Your task to perform on an android device: turn on priority inbox in the gmail app Image 0: 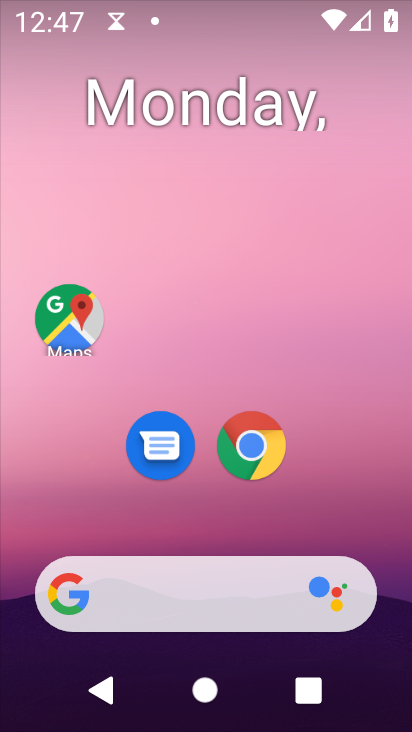
Step 0: drag from (256, 662) to (157, 95)
Your task to perform on an android device: turn on priority inbox in the gmail app Image 1: 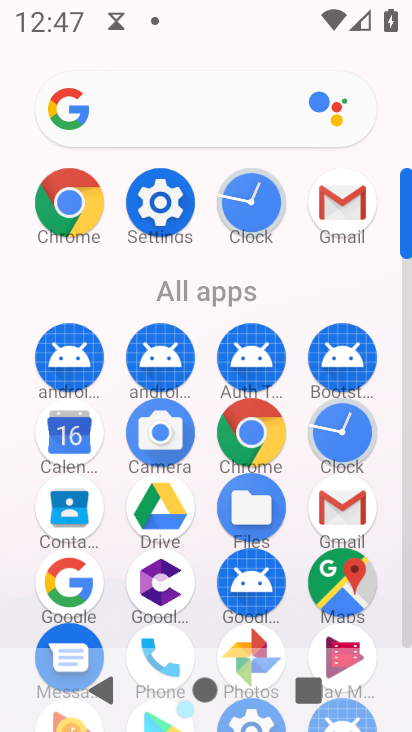
Step 1: click (329, 507)
Your task to perform on an android device: turn on priority inbox in the gmail app Image 2: 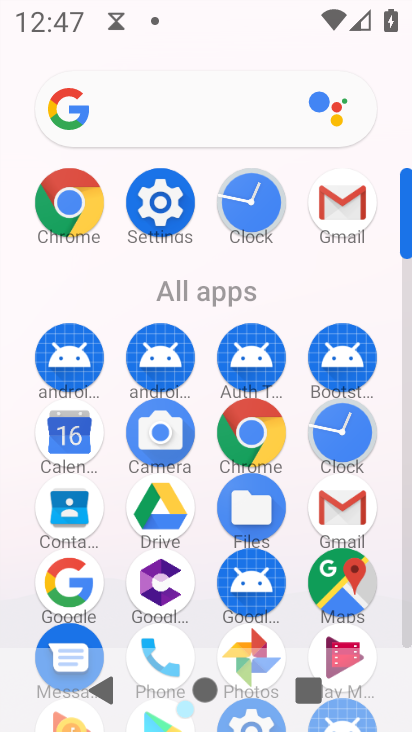
Step 2: click (329, 507)
Your task to perform on an android device: turn on priority inbox in the gmail app Image 3: 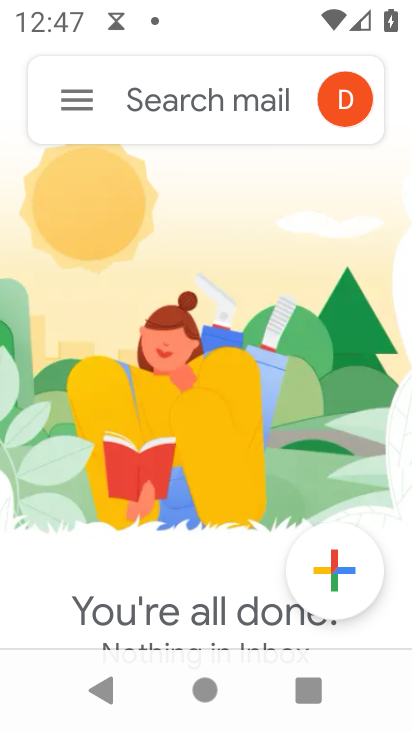
Step 3: drag from (158, 451) to (162, 212)
Your task to perform on an android device: turn on priority inbox in the gmail app Image 4: 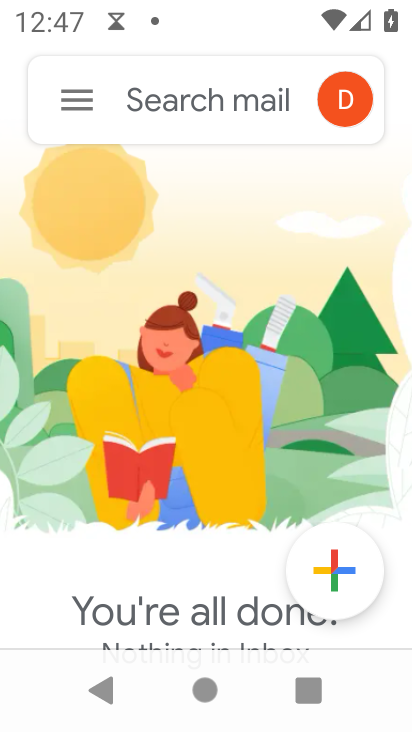
Step 4: drag from (193, 404) to (227, 134)
Your task to perform on an android device: turn on priority inbox in the gmail app Image 5: 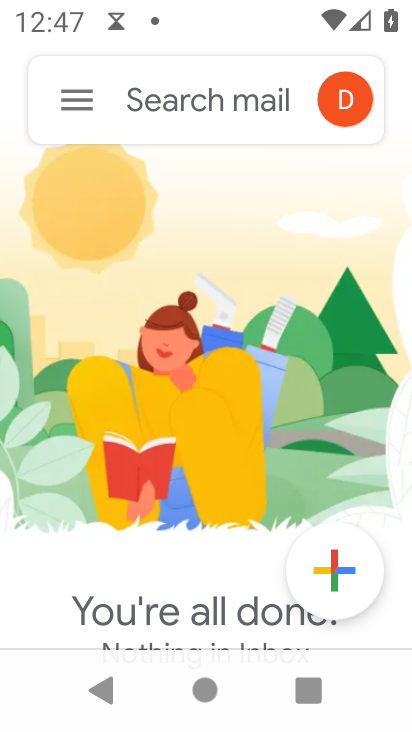
Step 5: drag from (279, 369) to (333, 55)
Your task to perform on an android device: turn on priority inbox in the gmail app Image 6: 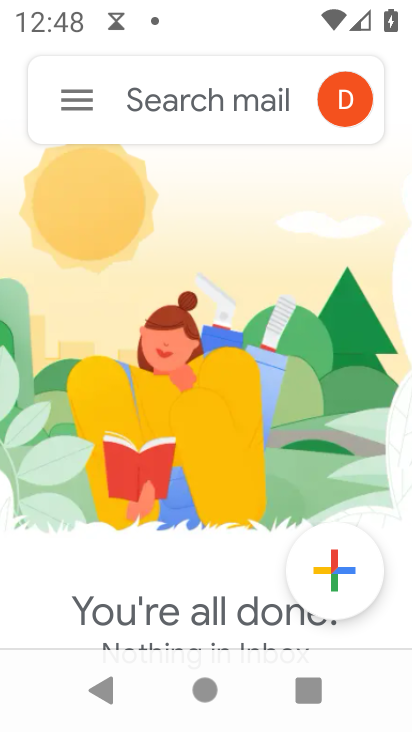
Step 6: click (69, 112)
Your task to perform on an android device: turn on priority inbox in the gmail app Image 7: 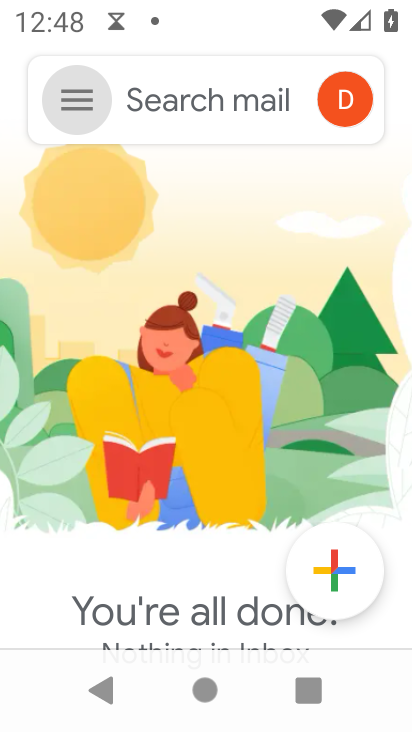
Step 7: click (81, 92)
Your task to perform on an android device: turn on priority inbox in the gmail app Image 8: 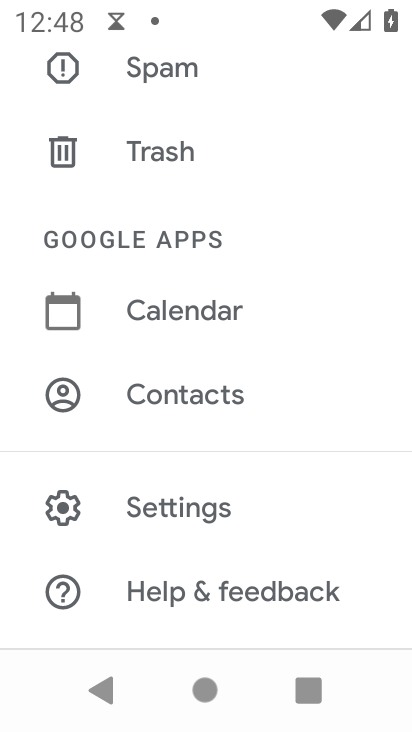
Step 8: drag from (236, 526) to (192, 159)
Your task to perform on an android device: turn on priority inbox in the gmail app Image 9: 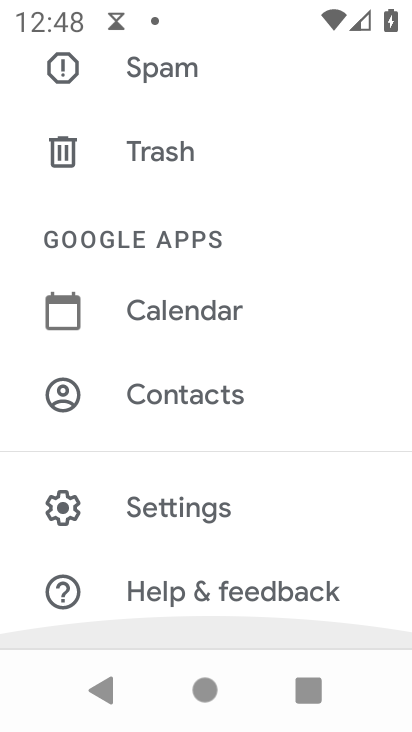
Step 9: drag from (226, 363) to (238, 47)
Your task to perform on an android device: turn on priority inbox in the gmail app Image 10: 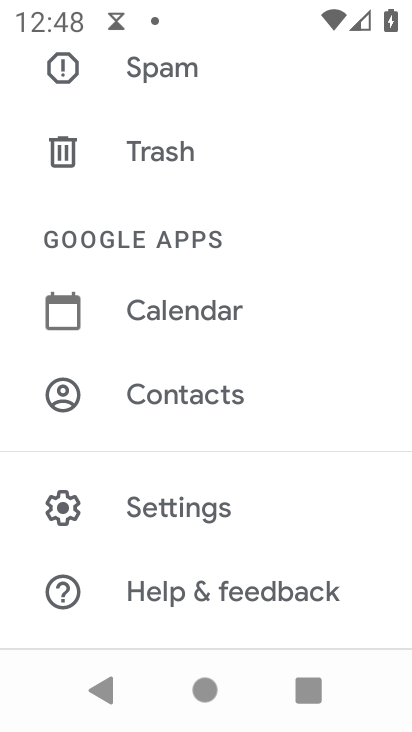
Step 10: click (168, 497)
Your task to perform on an android device: turn on priority inbox in the gmail app Image 11: 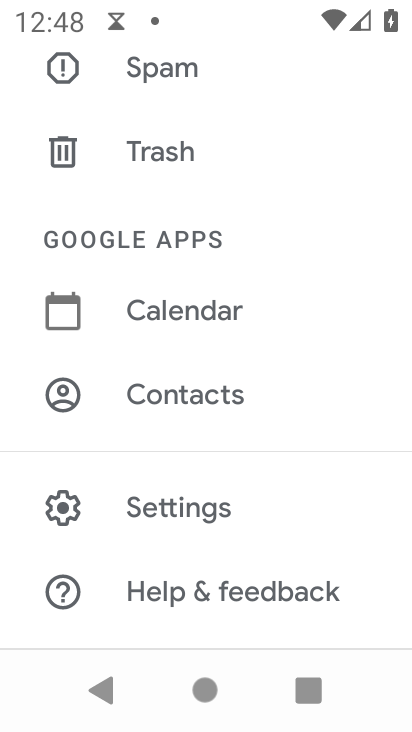
Step 11: click (168, 497)
Your task to perform on an android device: turn on priority inbox in the gmail app Image 12: 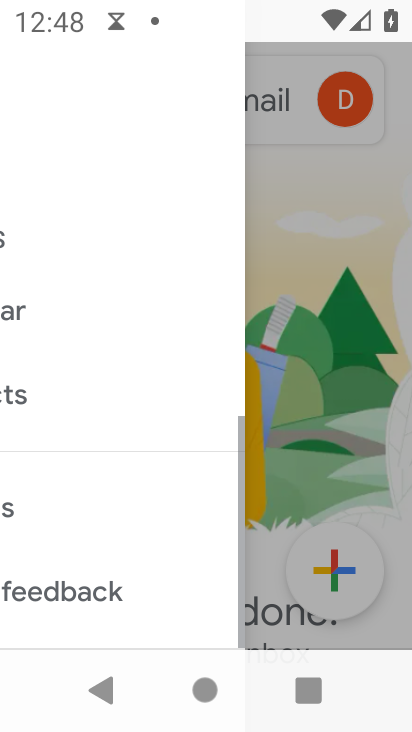
Step 12: click (168, 497)
Your task to perform on an android device: turn on priority inbox in the gmail app Image 13: 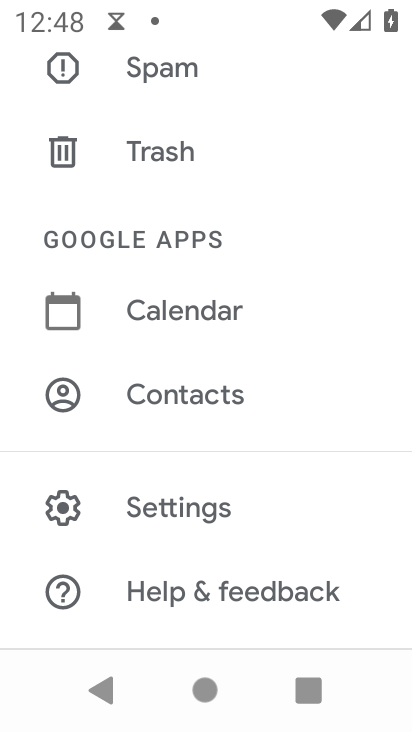
Step 13: click (188, 505)
Your task to perform on an android device: turn on priority inbox in the gmail app Image 14: 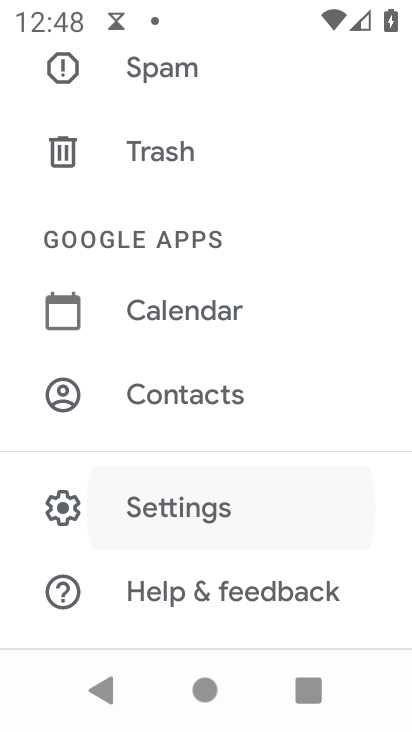
Step 14: click (188, 505)
Your task to perform on an android device: turn on priority inbox in the gmail app Image 15: 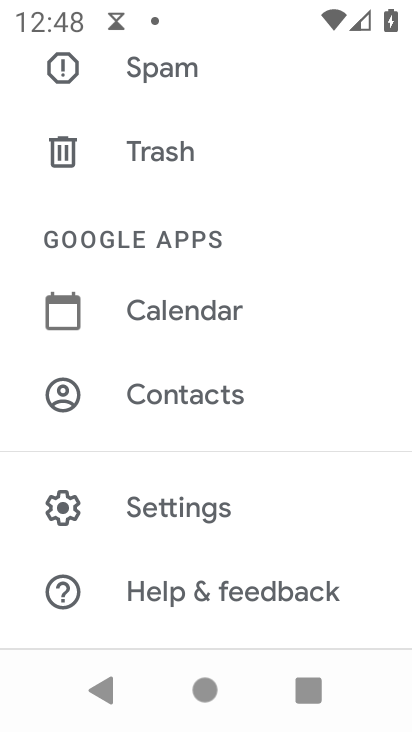
Step 15: click (188, 505)
Your task to perform on an android device: turn on priority inbox in the gmail app Image 16: 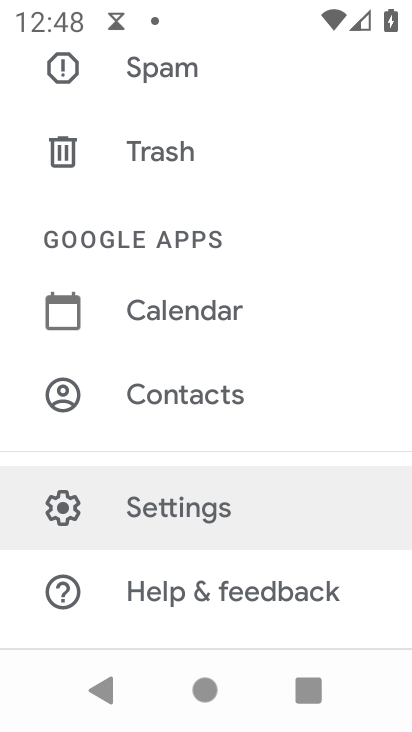
Step 16: click (188, 505)
Your task to perform on an android device: turn on priority inbox in the gmail app Image 17: 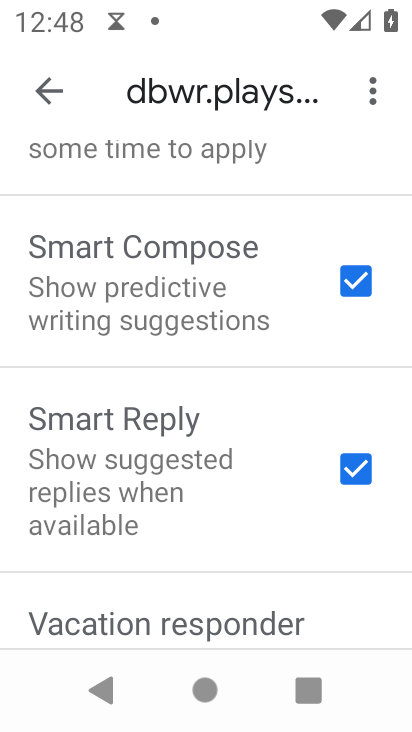
Step 17: drag from (212, 433) to (252, 172)
Your task to perform on an android device: turn on priority inbox in the gmail app Image 18: 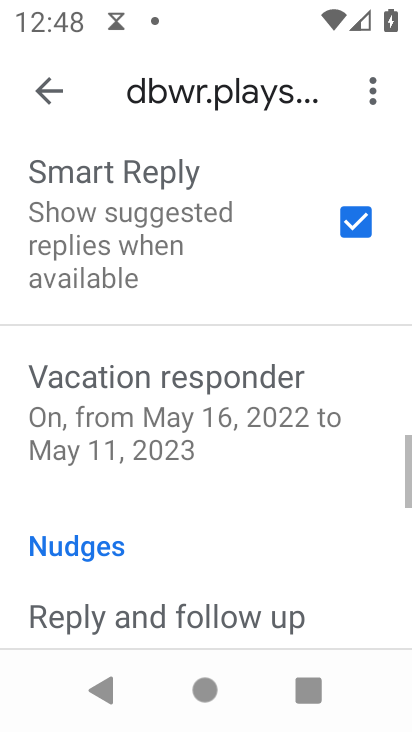
Step 18: drag from (263, 400) to (276, 149)
Your task to perform on an android device: turn on priority inbox in the gmail app Image 19: 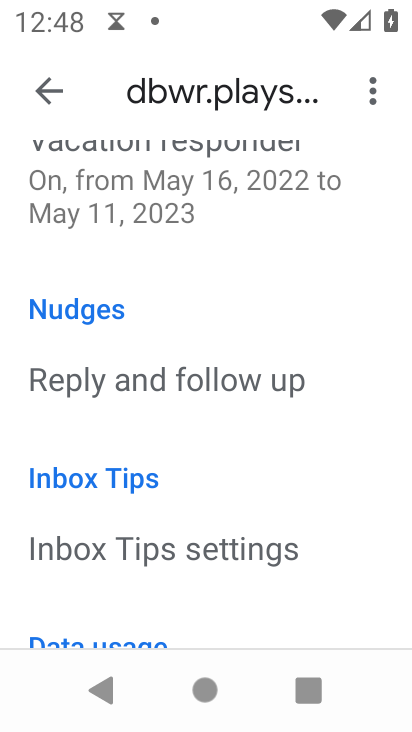
Step 19: drag from (139, 236) to (177, 602)
Your task to perform on an android device: turn on priority inbox in the gmail app Image 20: 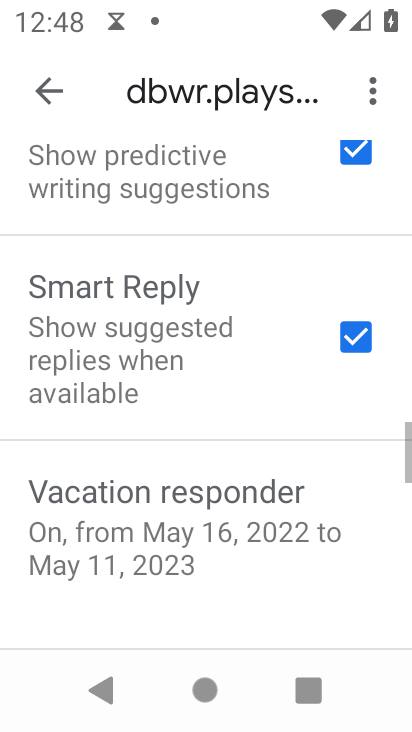
Step 20: drag from (100, 244) to (125, 552)
Your task to perform on an android device: turn on priority inbox in the gmail app Image 21: 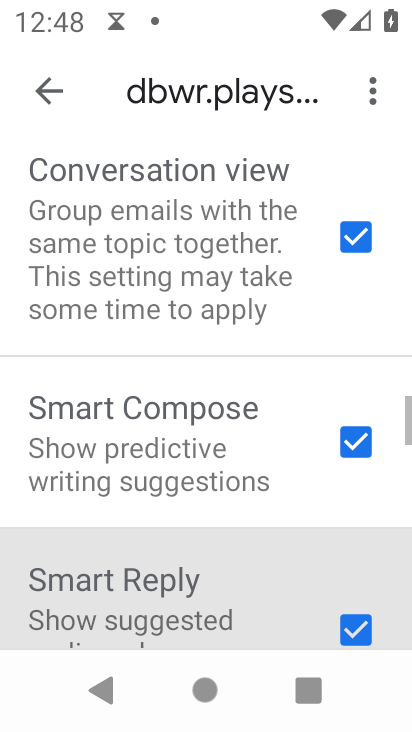
Step 21: drag from (170, 282) to (223, 563)
Your task to perform on an android device: turn on priority inbox in the gmail app Image 22: 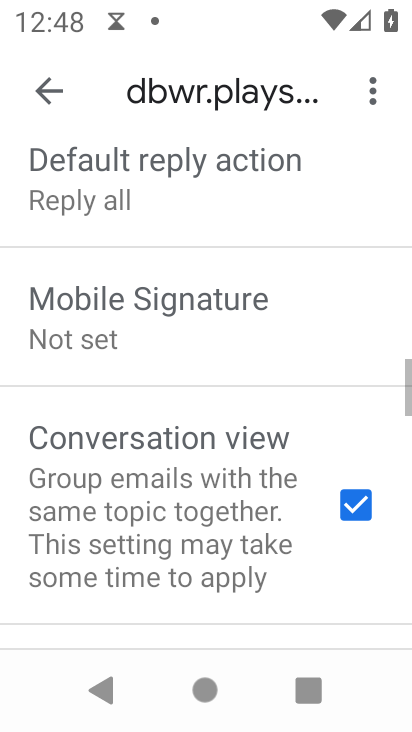
Step 22: drag from (154, 252) to (207, 609)
Your task to perform on an android device: turn on priority inbox in the gmail app Image 23: 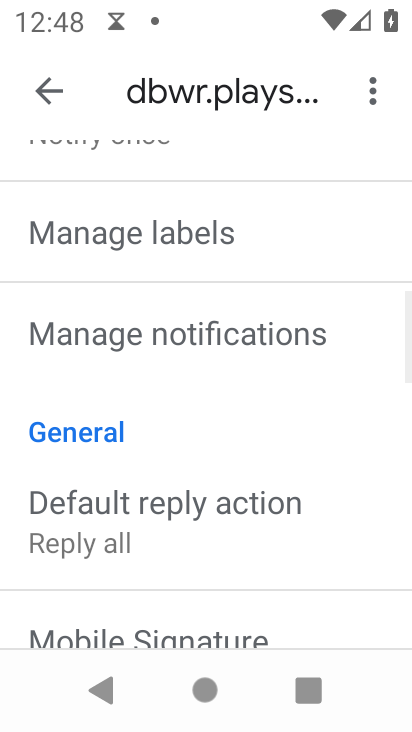
Step 23: drag from (204, 263) to (229, 684)
Your task to perform on an android device: turn on priority inbox in the gmail app Image 24: 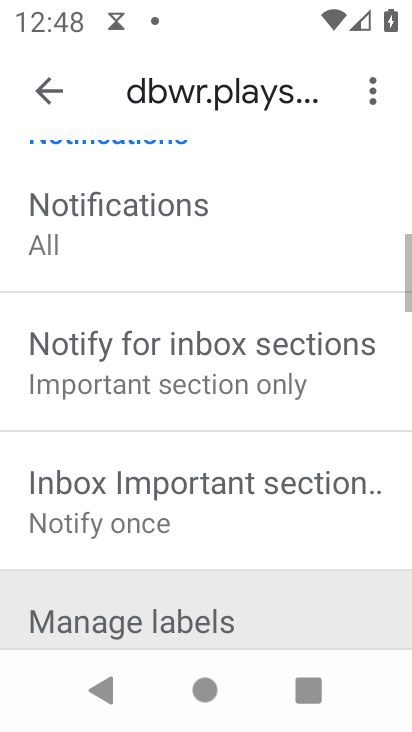
Step 24: drag from (121, 213) to (134, 587)
Your task to perform on an android device: turn on priority inbox in the gmail app Image 25: 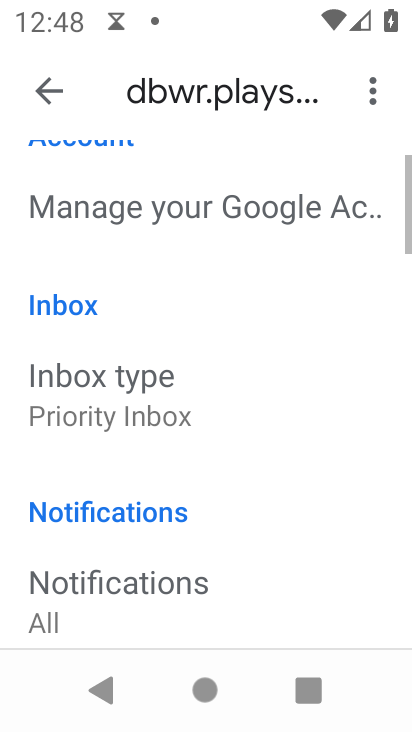
Step 25: drag from (118, 324) to (171, 665)
Your task to perform on an android device: turn on priority inbox in the gmail app Image 26: 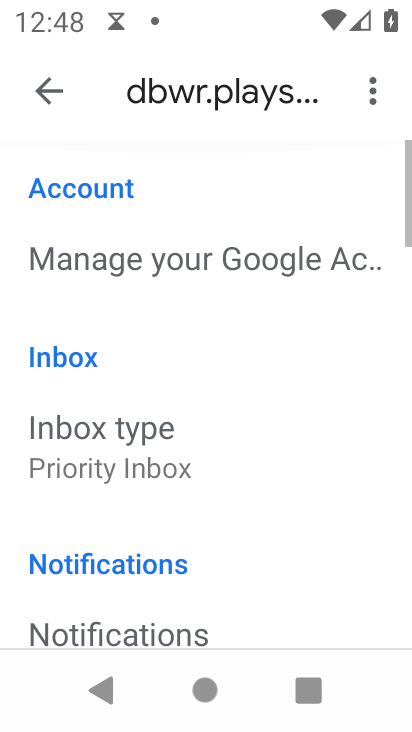
Step 26: drag from (145, 248) to (234, 724)
Your task to perform on an android device: turn on priority inbox in the gmail app Image 27: 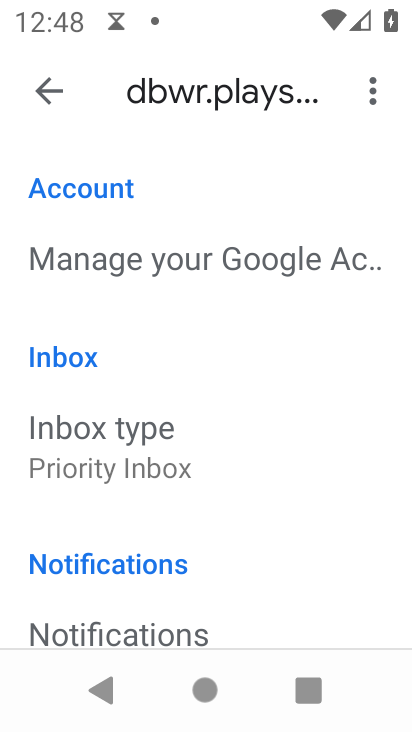
Step 27: click (109, 444)
Your task to perform on an android device: turn on priority inbox in the gmail app Image 28: 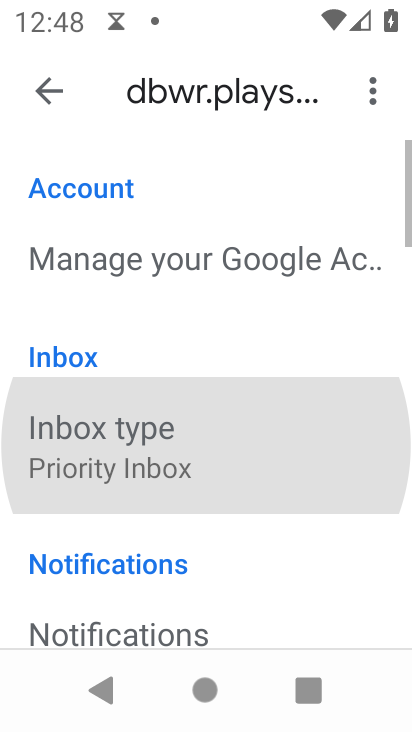
Step 28: click (109, 444)
Your task to perform on an android device: turn on priority inbox in the gmail app Image 29: 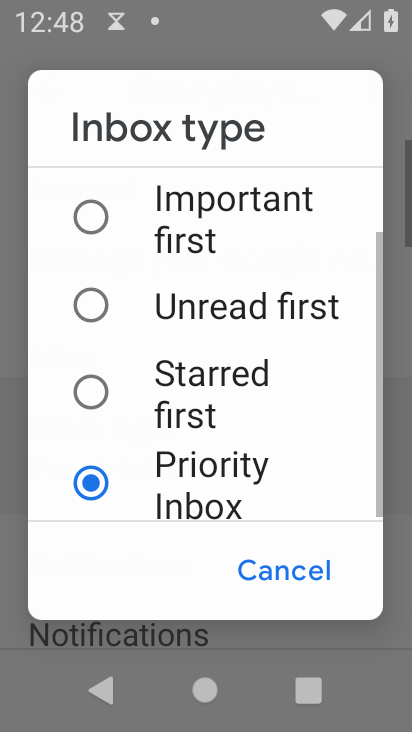
Step 29: click (109, 444)
Your task to perform on an android device: turn on priority inbox in the gmail app Image 30: 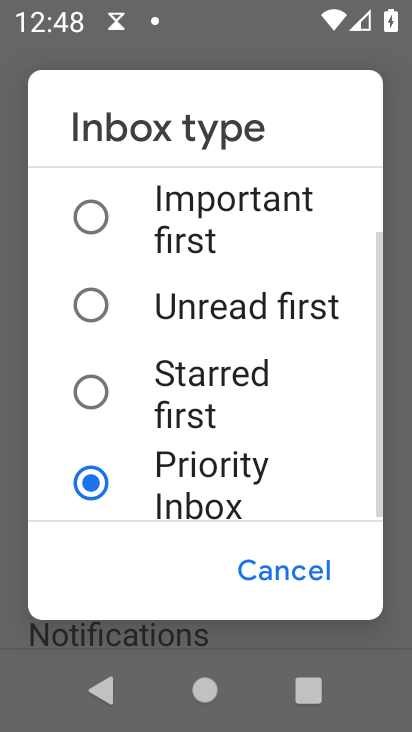
Step 30: click (285, 558)
Your task to perform on an android device: turn on priority inbox in the gmail app Image 31: 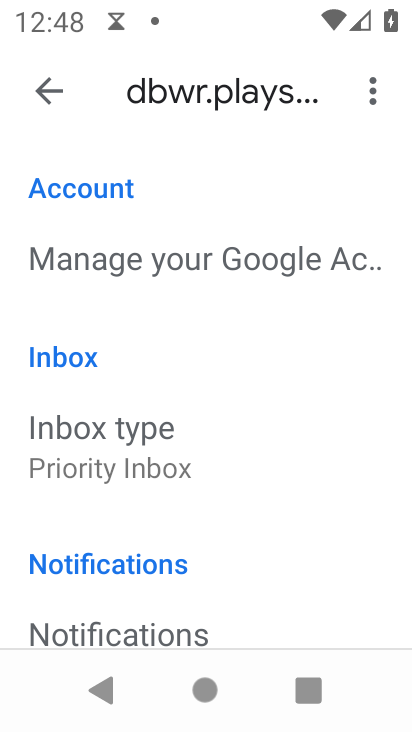
Step 31: task complete